Your task to perform on an android device: change text size in settings app Image 0: 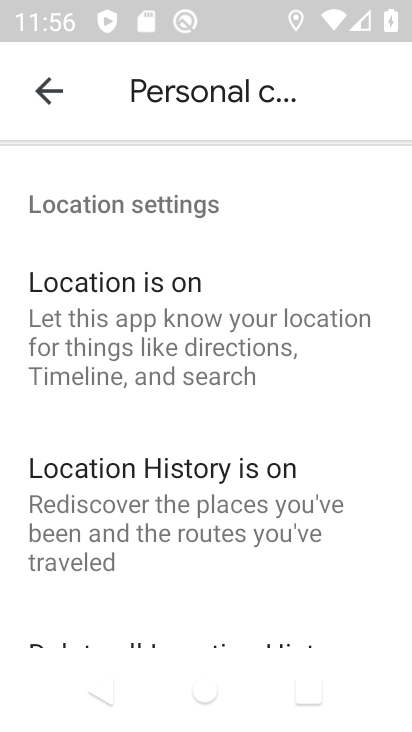
Step 0: press home button
Your task to perform on an android device: change text size in settings app Image 1: 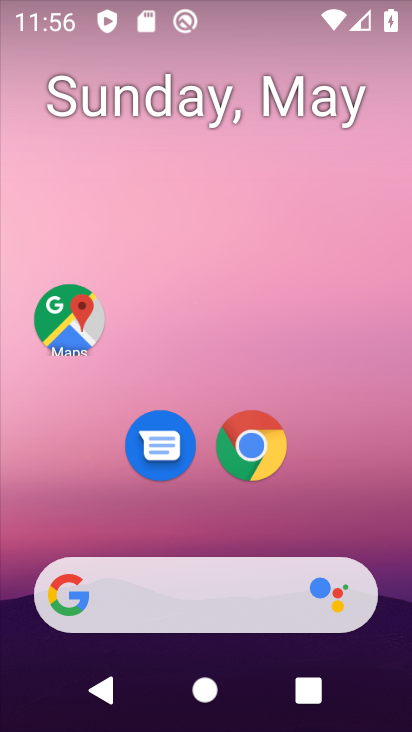
Step 1: drag from (303, 500) to (331, 142)
Your task to perform on an android device: change text size in settings app Image 2: 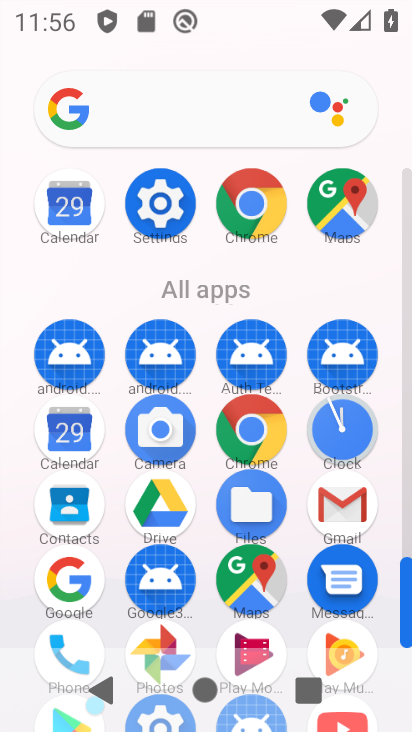
Step 2: click (169, 211)
Your task to perform on an android device: change text size in settings app Image 3: 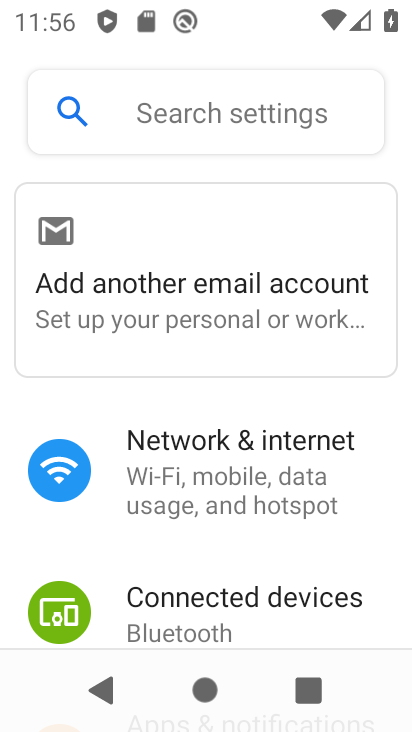
Step 3: drag from (246, 551) to (400, 75)
Your task to perform on an android device: change text size in settings app Image 4: 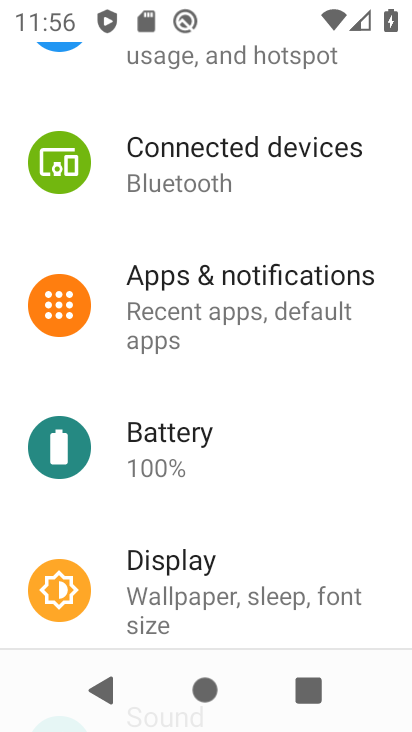
Step 4: drag from (224, 578) to (308, 269)
Your task to perform on an android device: change text size in settings app Image 5: 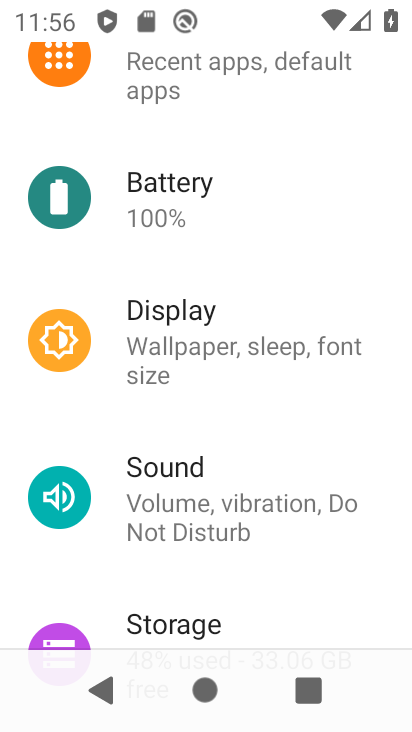
Step 5: click (199, 338)
Your task to perform on an android device: change text size in settings app Image 6: 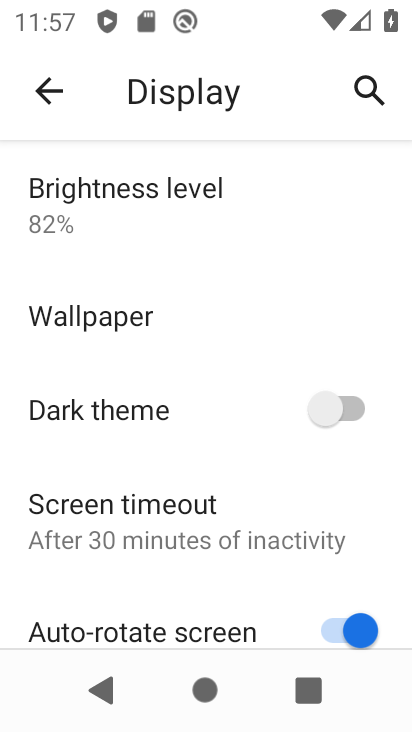
Step 6: drag from (222, 558) to (280, 282)
Your task to perform on an android device: change text size in settings app Image 7: 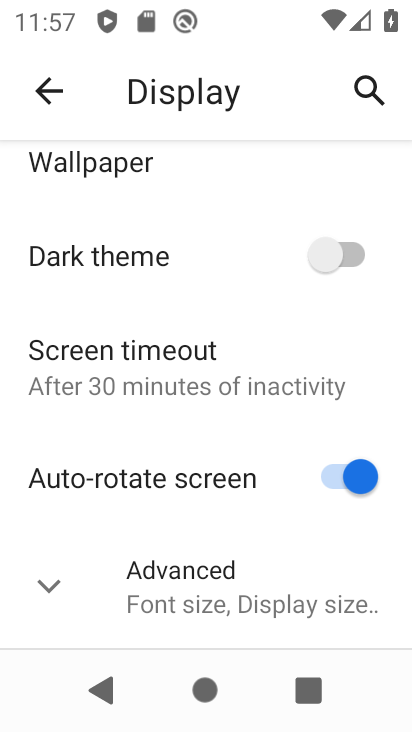
Step 7: click (145, 586)
Your task to perform on an android device: change text size in settings app Image 8: 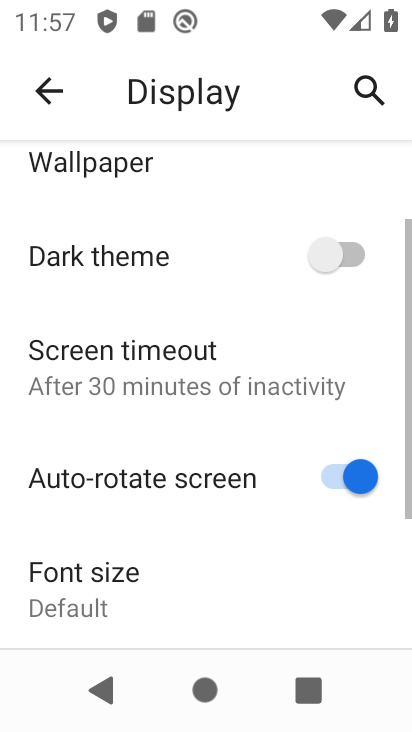
Step 8: drag from (145, 586) to (245, 248)
Your task to perform on an android device: change text size in settings app Image 9: 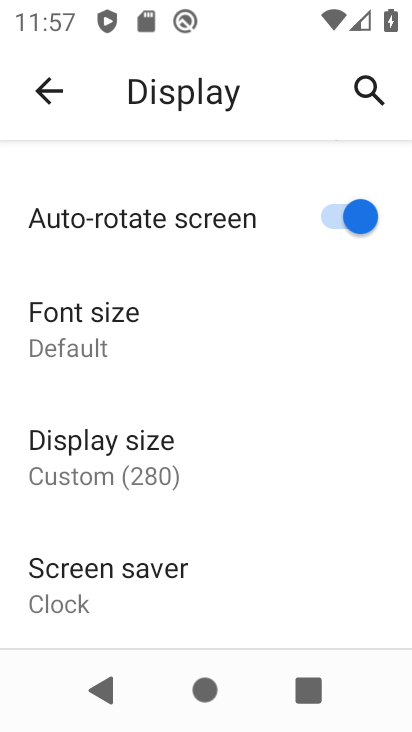
Step 9: drag from (153, 511) to (244, 317)
Your task to perform on an android device: change text size in settings app Image 10: 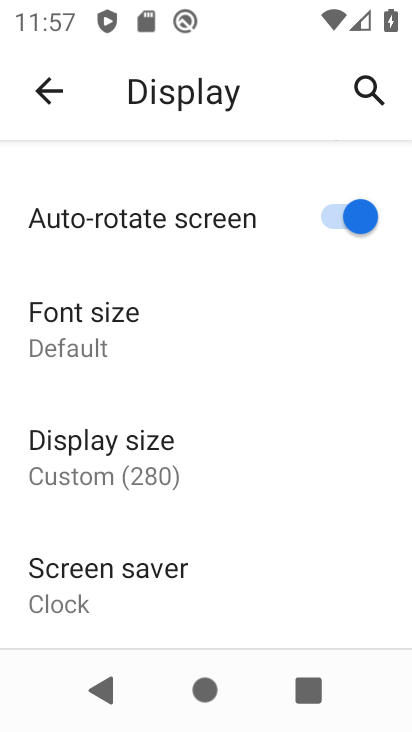
Step 10: click (81, 336)
Your task to perform on an android device: change text size in settings app Image 11: 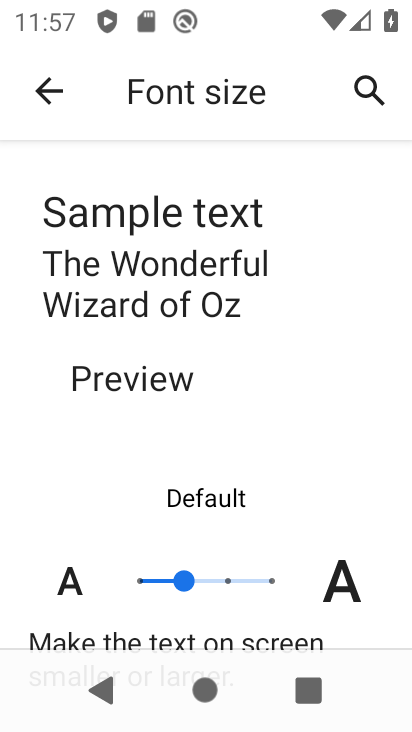
Step 11: click (211, 570)
Your task to perform on an android device: change text size in settings app Image 12: 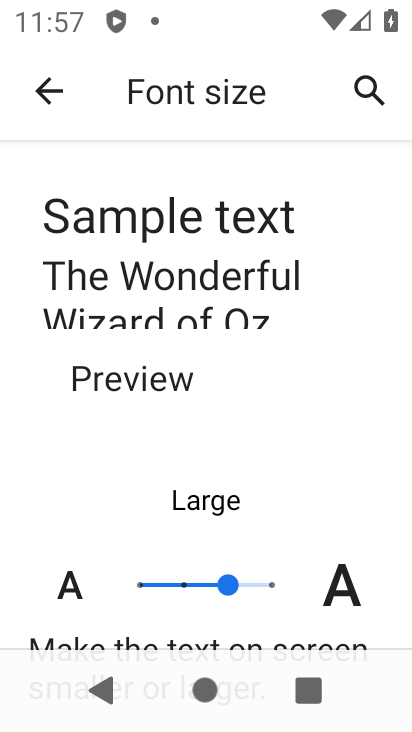
Step 12: task complete